Your task to perform on an android device: Search for razer nari on target, select the first entry, add it to the cart, then select checkout. Image 0: 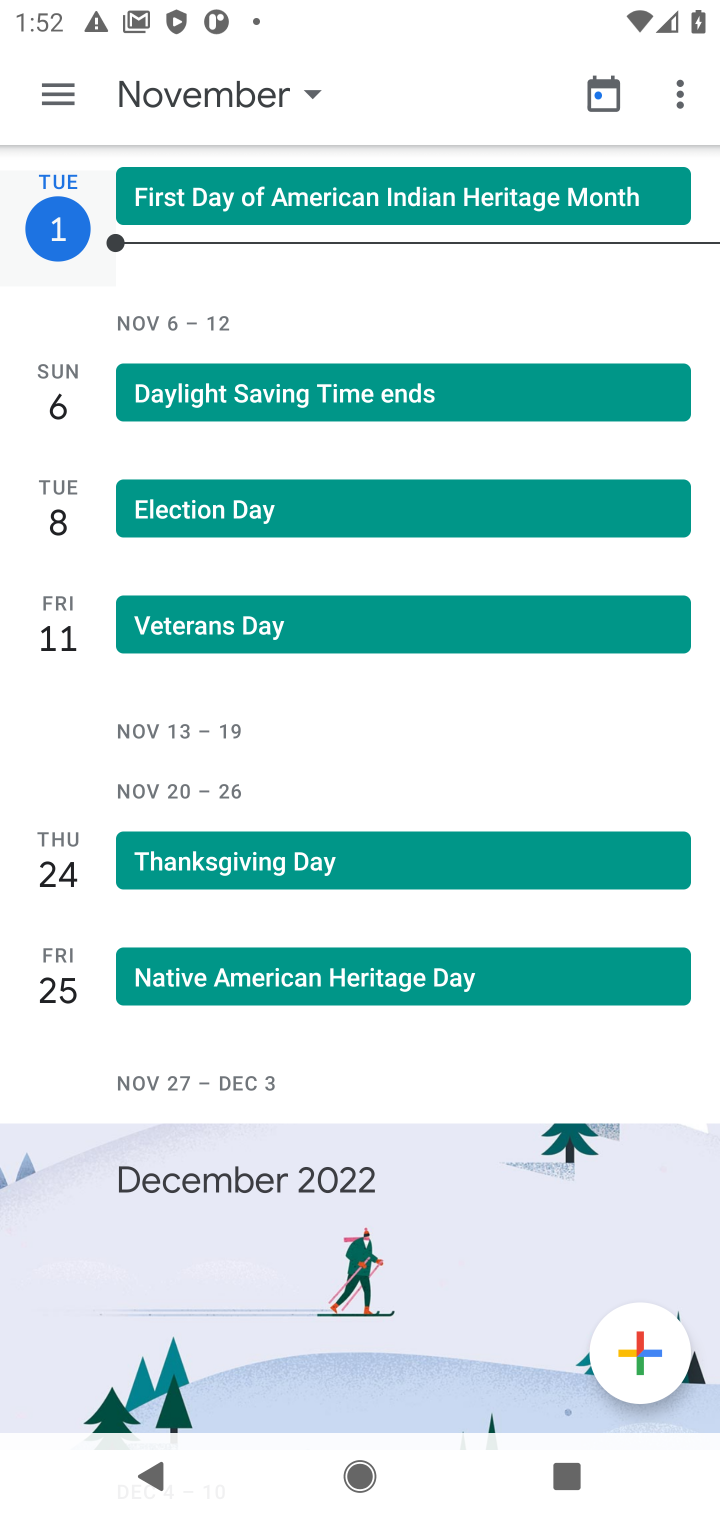
Step 0: press home button
Your task to perform on an android device: Search for razer nari on target, select the first entry, add it to the cart, then select checkout. Image 1: 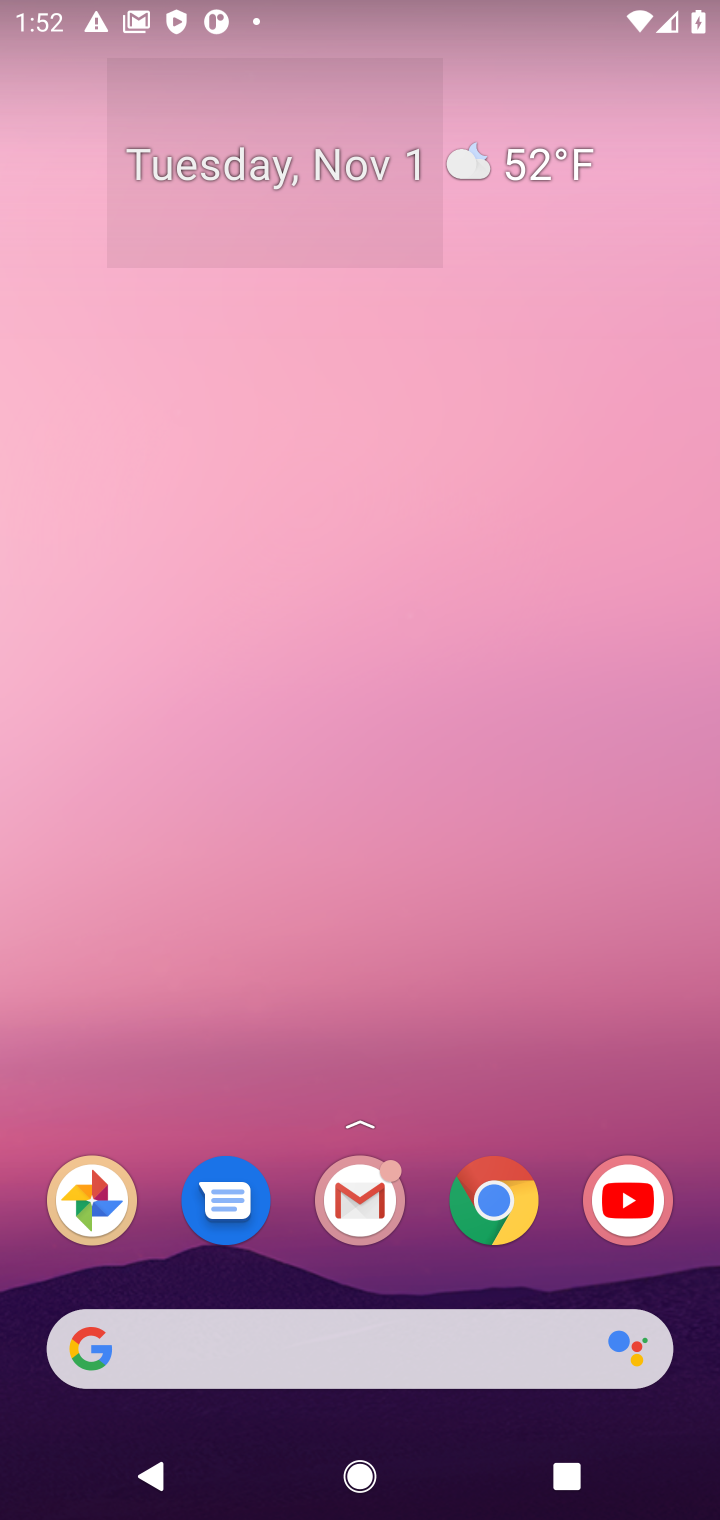
Step 1: click (80, 1349)
Your task to perform on an android device: Search for razer nari on target, select the first entry, add it to the cart, then select checkout. Image 2: 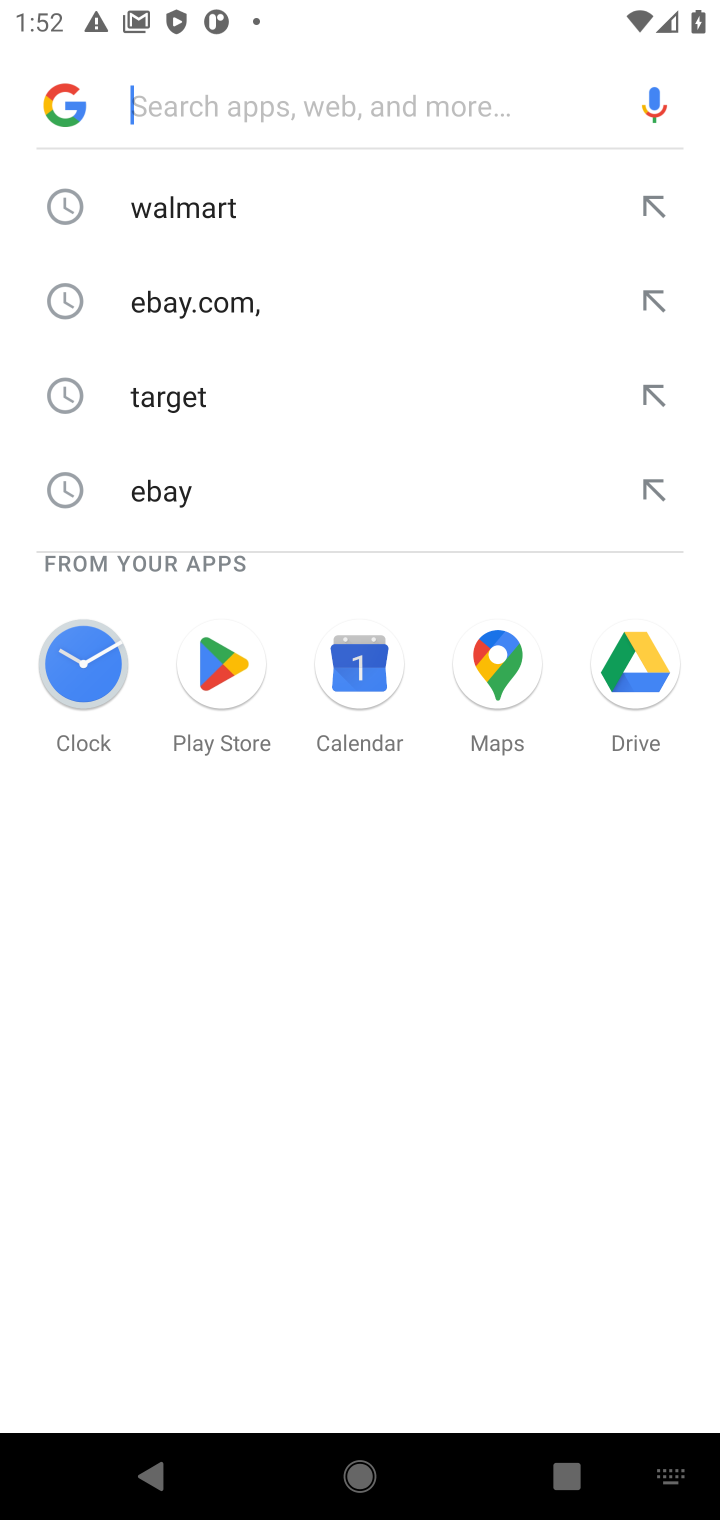
Step 2: type "target"
Your task to perform on an android device: Search for razer nari on target, select the first entry, add it to the cart, then select checkout. Image 3: 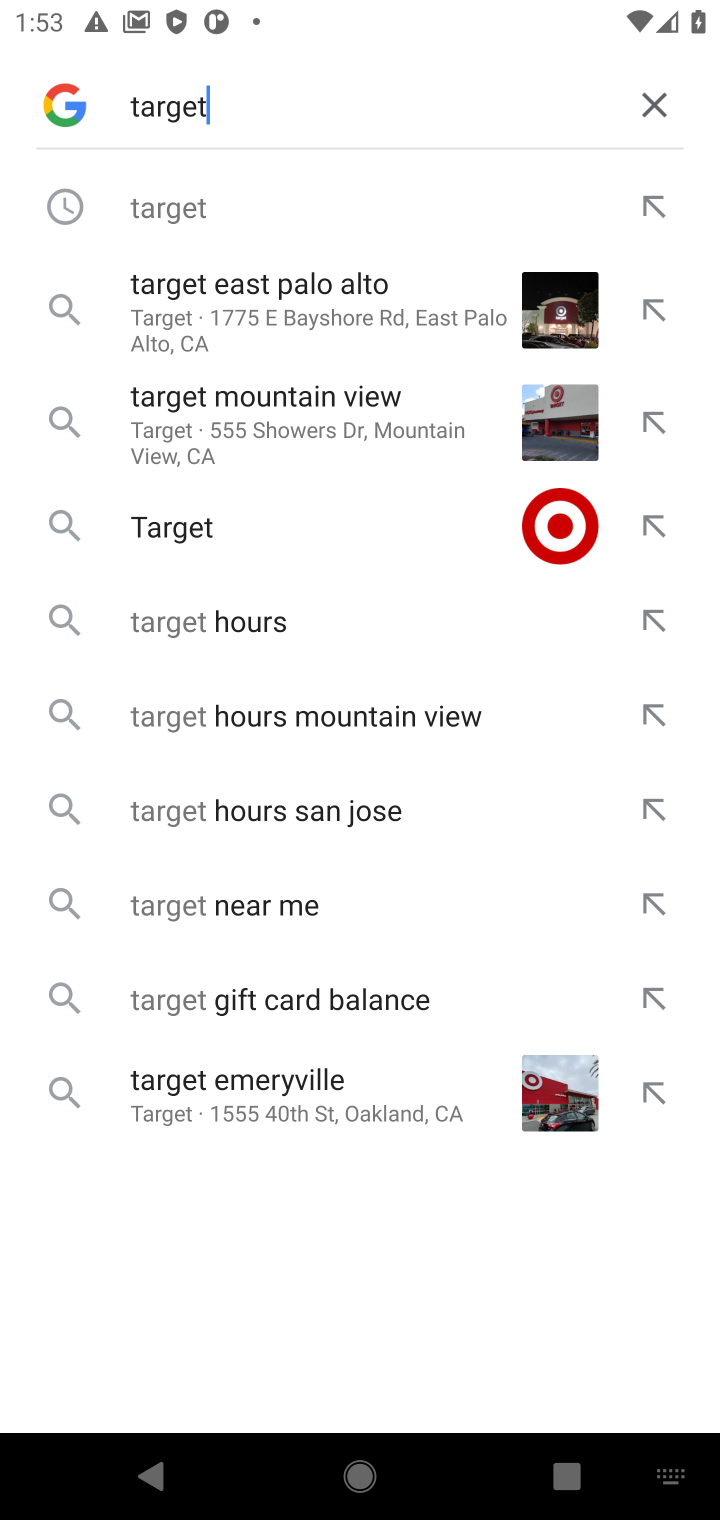
Step 3: click (204, 215)
Your task to perform on an android device: Search for razer nari on target, select the first entry, add it to the cart, then select checkout. Image 4: 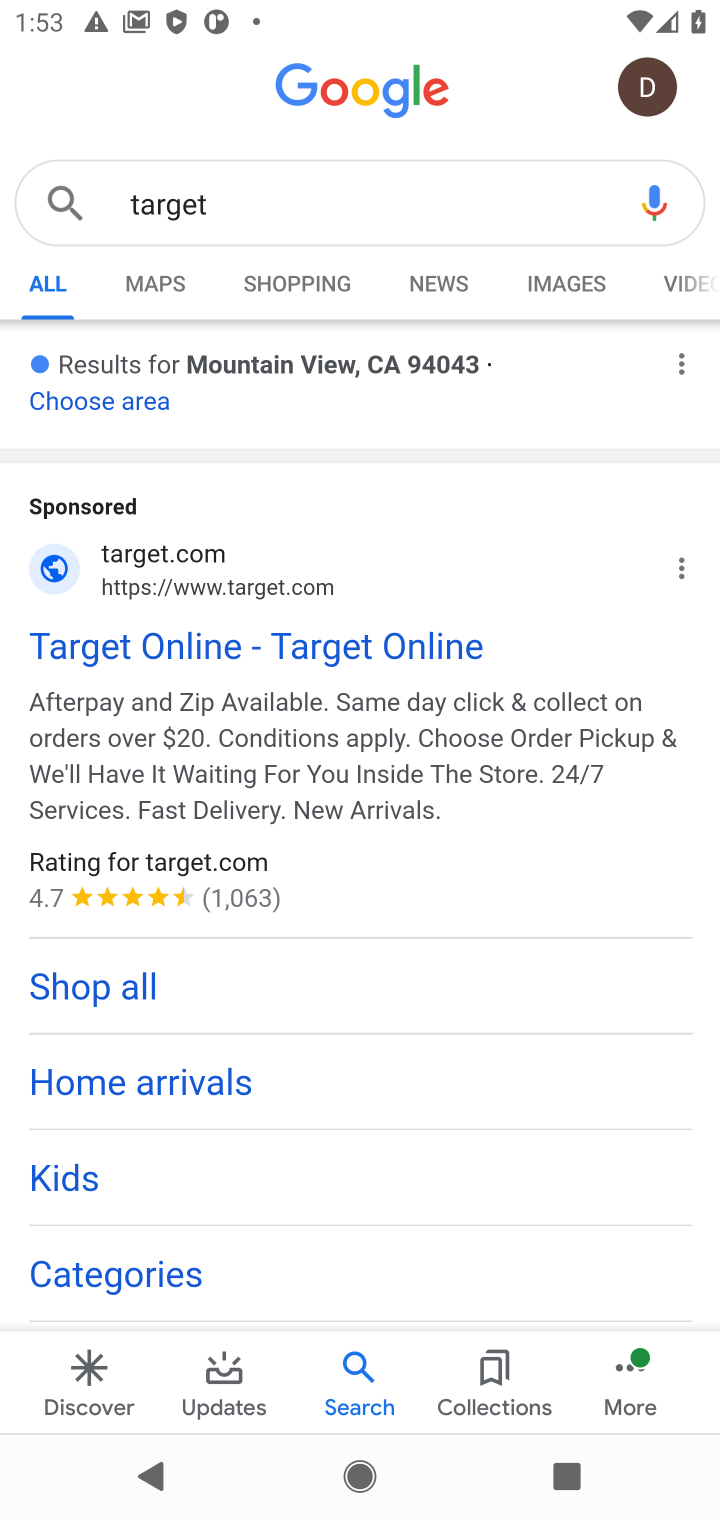
Step 4: click (135, 636)
Your task to perform on an android device: Search for razer nari on target, select the first entry, add it to the cart, then select checkout. Image 5: 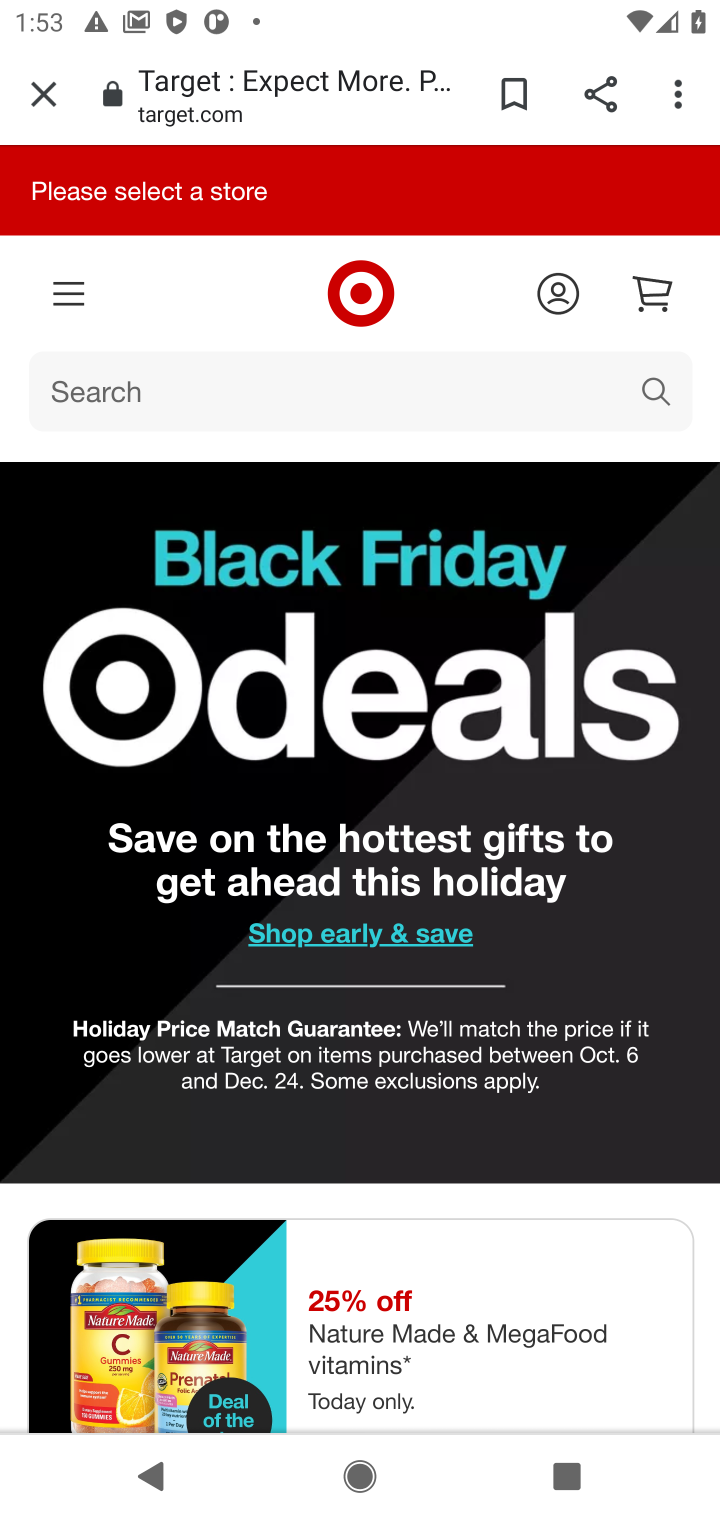
Step 5: click (652, 387)
Your task to perform on an android device: Search for razer nari on target, select the first entry, add it to the cart, then select checkout. Image 6: 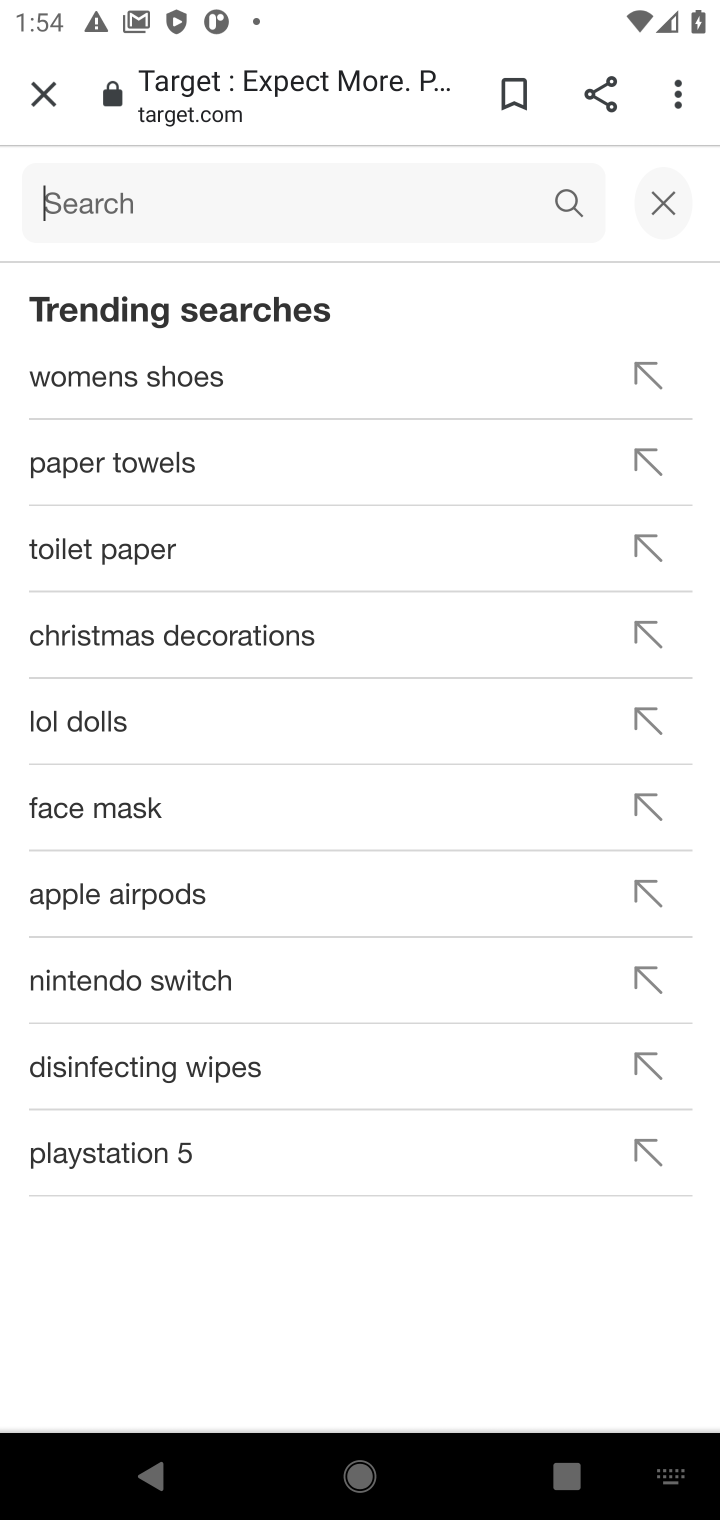
Step 6: type "razer nari"
Your task to perform on an android device: Search for razer nari on target, select the first entry, add it to the cart, then select checkout. Image 7: 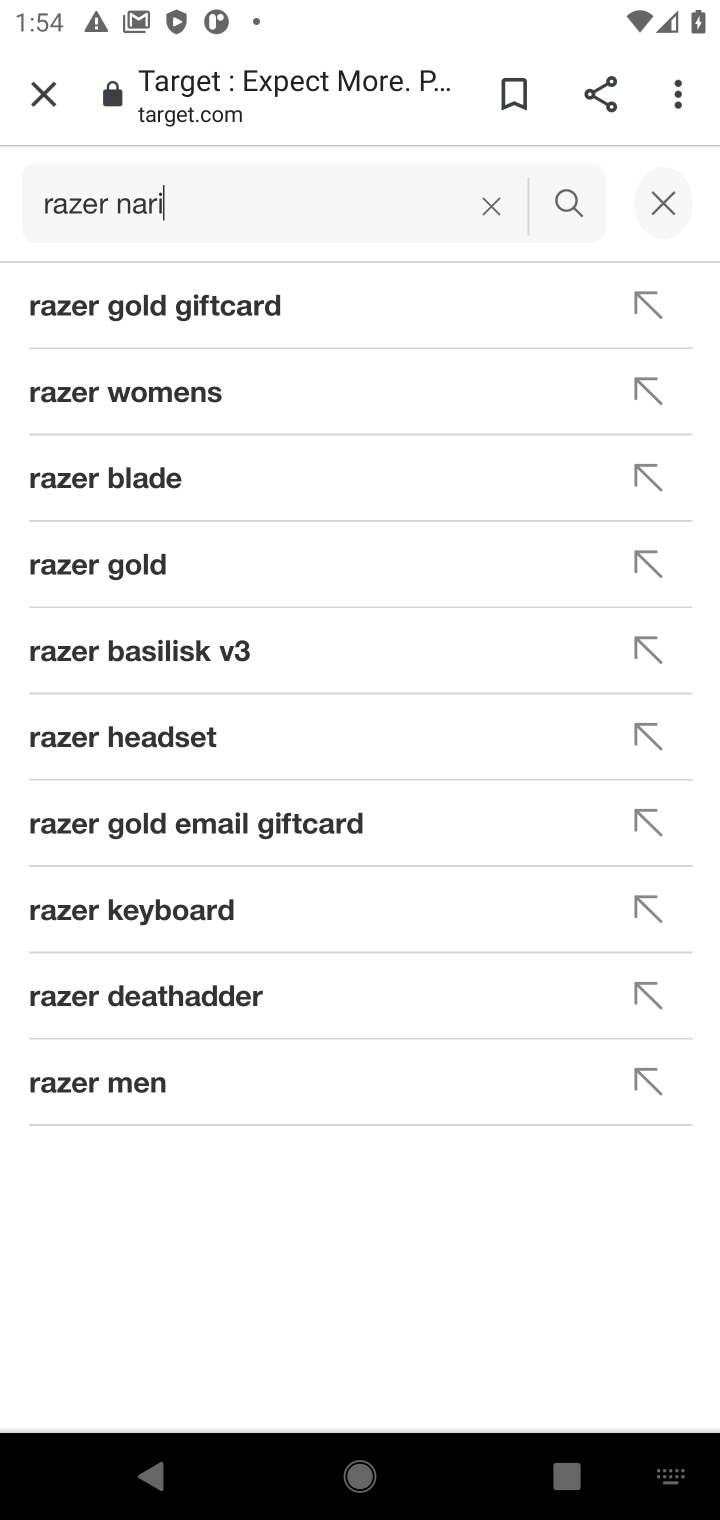
Step 7: click (311, 221)
Your task to perform on an android device: Search for razer nari on target, select the first entry, add it to the cart, then select checkout. Image 8: 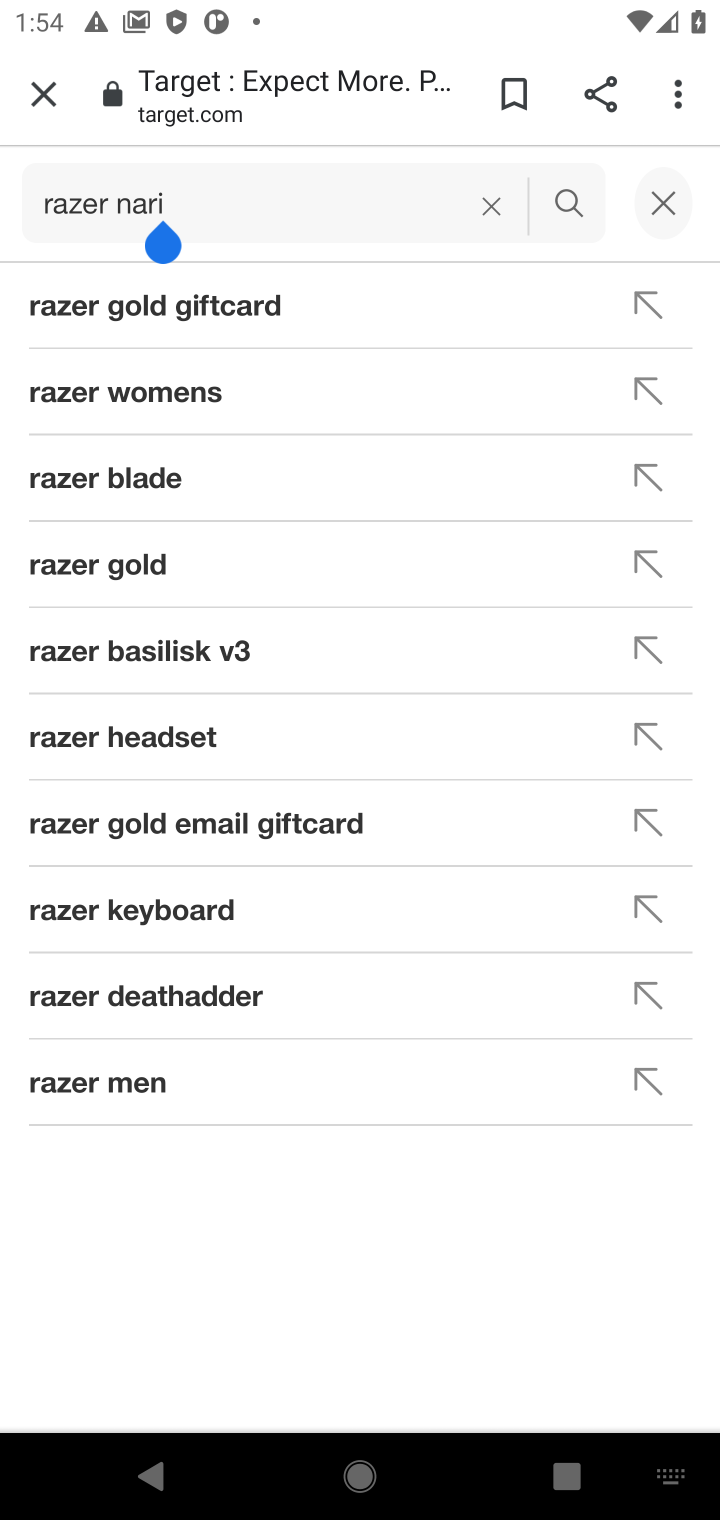
Step 8: click (131, 401)
Your task to perform on an android device: Search for razer nari on target, select the first entry, add it to the cart, then select checkout. Image 9: 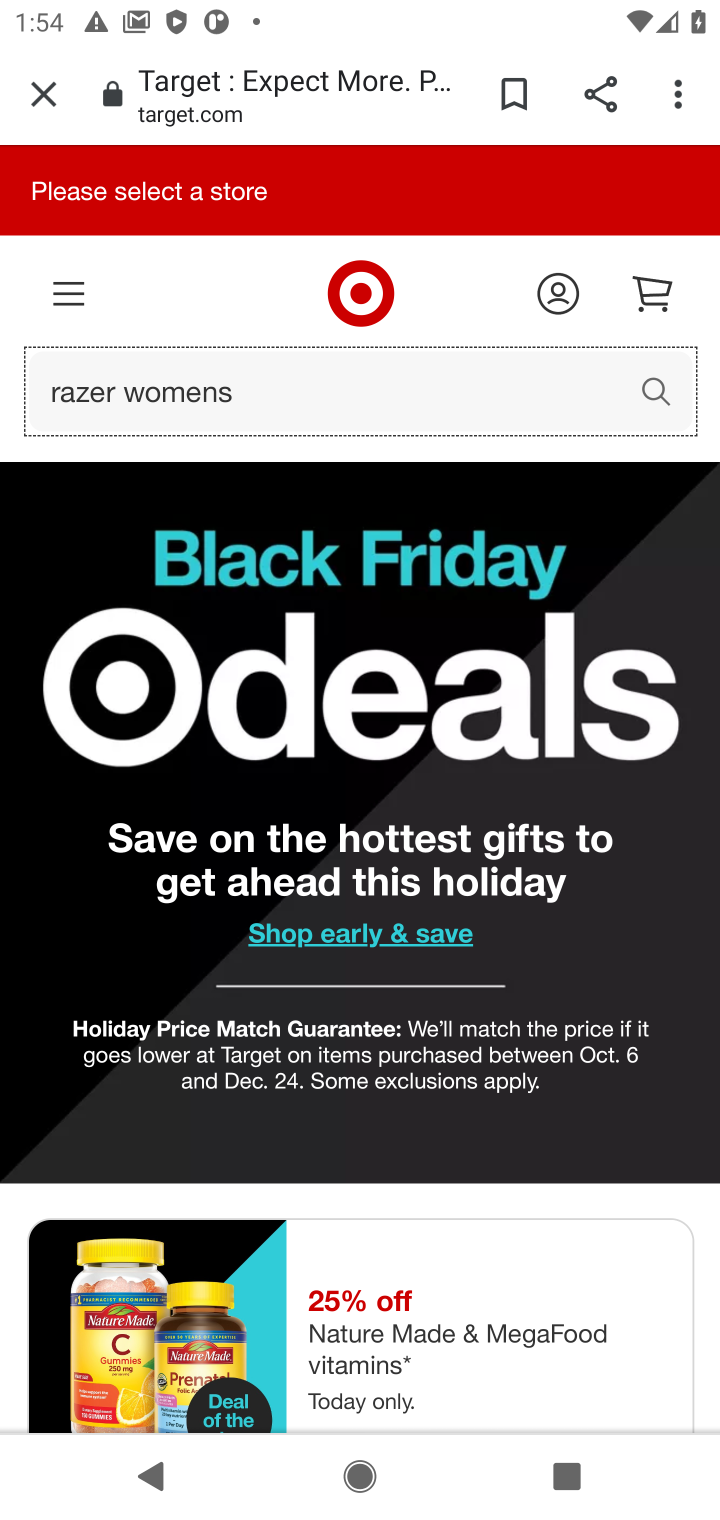
Step 9: task complete